Your task to perform on an android device: read, delete, or share a saved page in the chrome app Image 0: 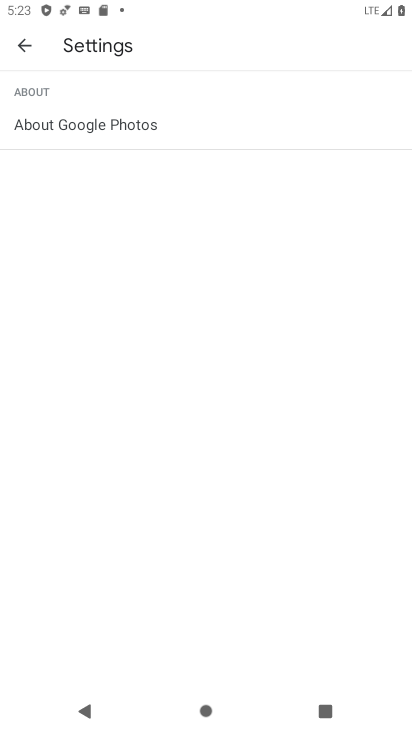
Step 0: press home button
Your task to perform on an android device: read, delete, or share a saved page in the chrome app Image 1: 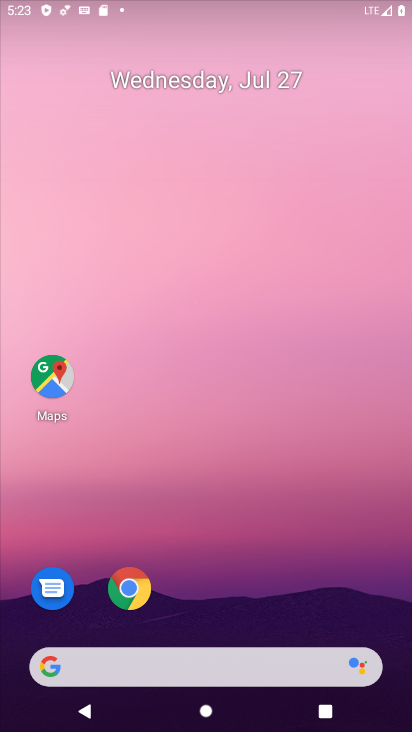
Step 1: drag from (219, 644) to (242, 5)
Your task to perform on an android device: read, delete, or share a saved page in the chrome app Image 2: 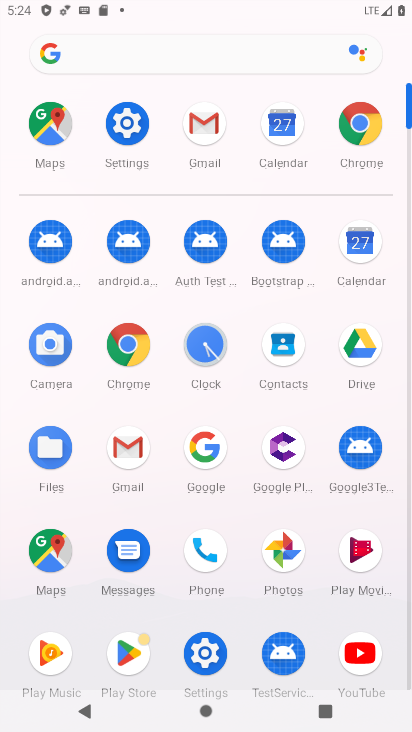
Step 2: click (132, 347)
Your task to perform on an android device: read, delete, or share a saved page in the chrome app Image 3: 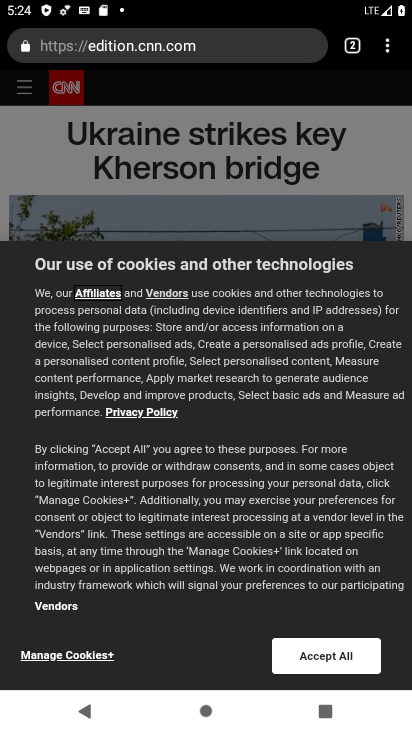
Step 3: click (392, 45)
Your task to perform on an android device: read, delete, or share a saved page in the chrome app Image 4: 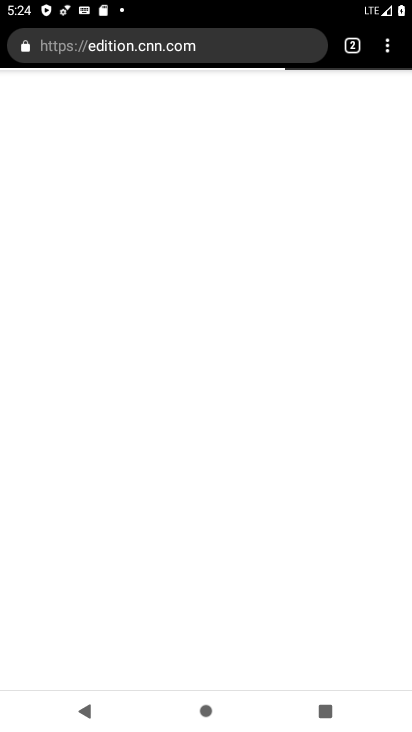
Step 4: click (388, 49)
Your task to perform on an android device: read, delete, or share a saved page in the chrome app Image 5: 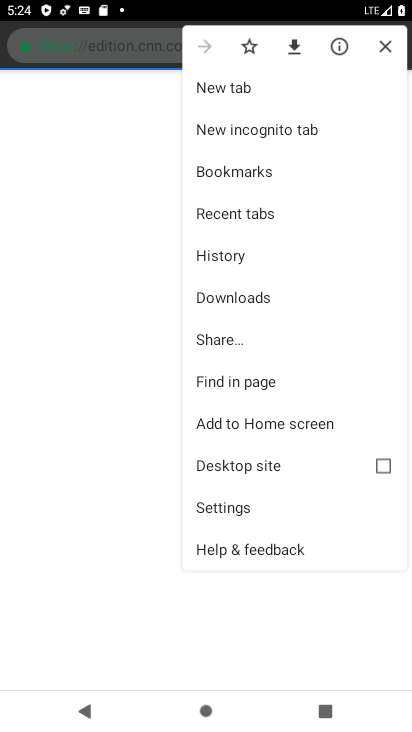
Step 5: click (265, 296)
Your task to perform on an android device: read, delete, or share a saved page in the chrome app Image 6: 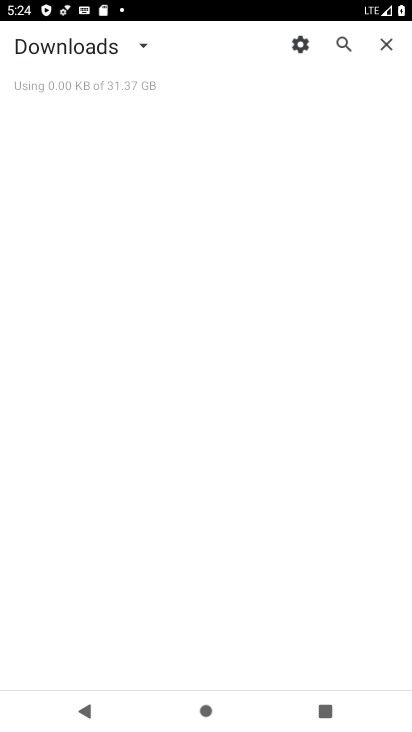
Step 6: task complete